Your task to perform on an android device: snooze an email in the gmail app Image 0: 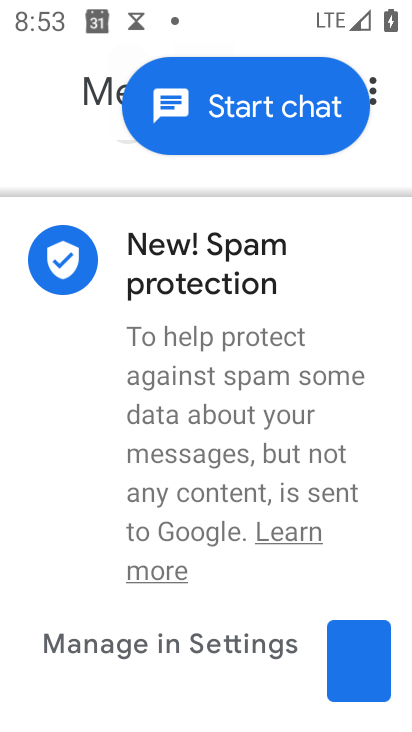
Step 0: press home button
Your task to perform on an android device: snooze an email in the gmail app Image 1: 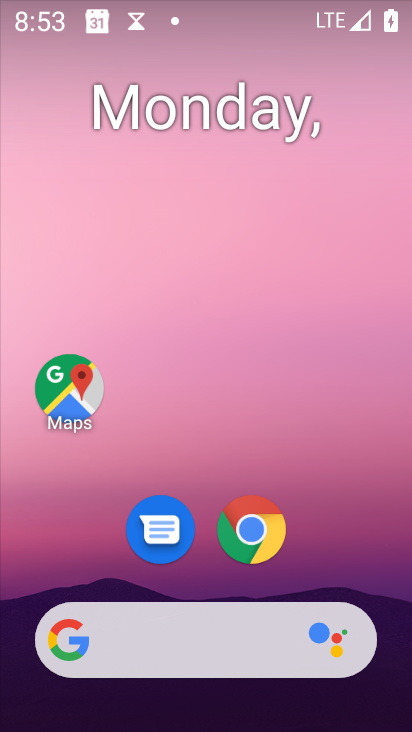
Step 1: drag from (32, 640) to (266, 159)
Your task to perform on an android device: snooze an email in the gmail app Image 2: 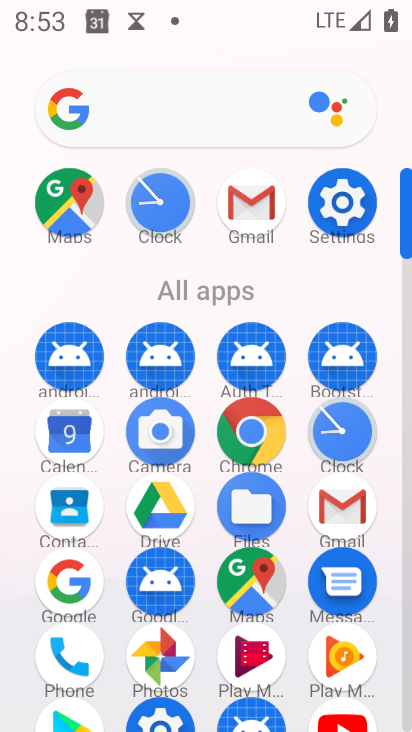
Step 2: click (259, 216)
Your task to perform on an android device: snooze an email in the gmail app Image 3: 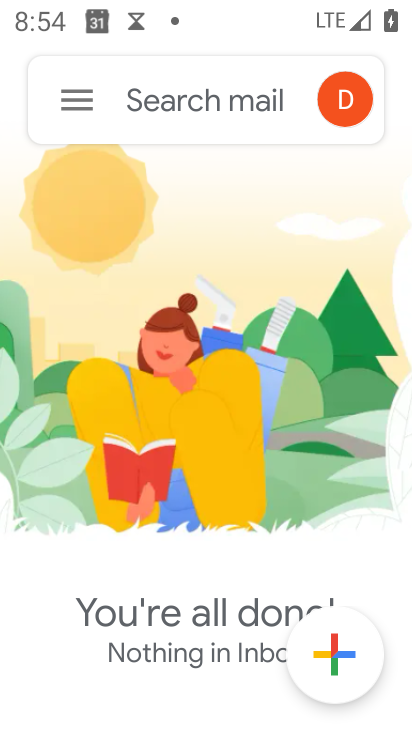
Step 3: click (66, 86)
Your task to perform on an android device: snooze an email in the gmail app Image 4: 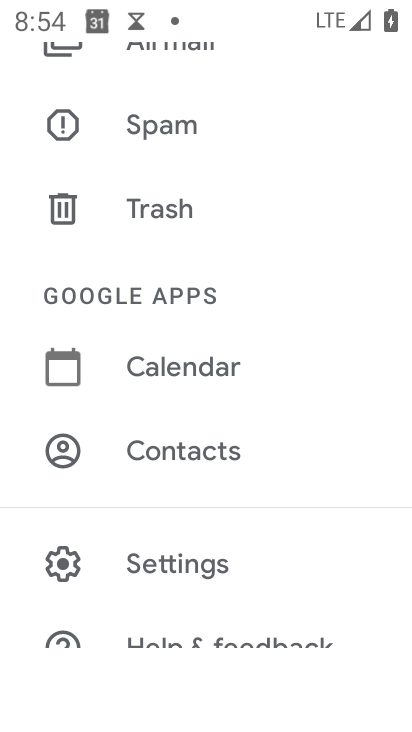
Step 4: drag from (73, 150) to (31, 599)
Your task to perform on an android device: snooze an email in the gmail app Image 5: 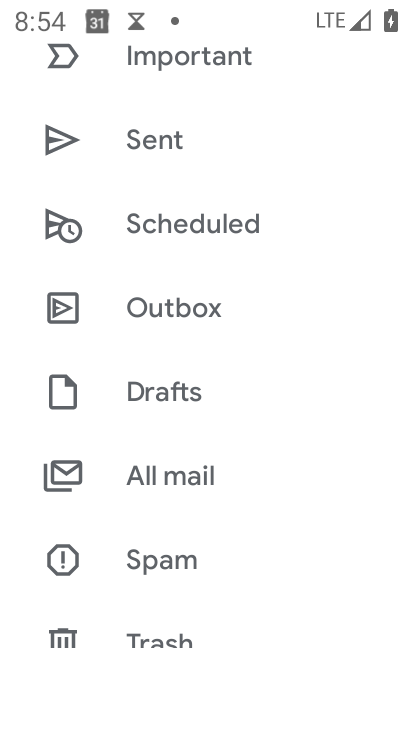
Step 5: drag from (177, 143) to (131, 674)
Your task to perform on an android device: snooze an email in the gmail app Image 6: 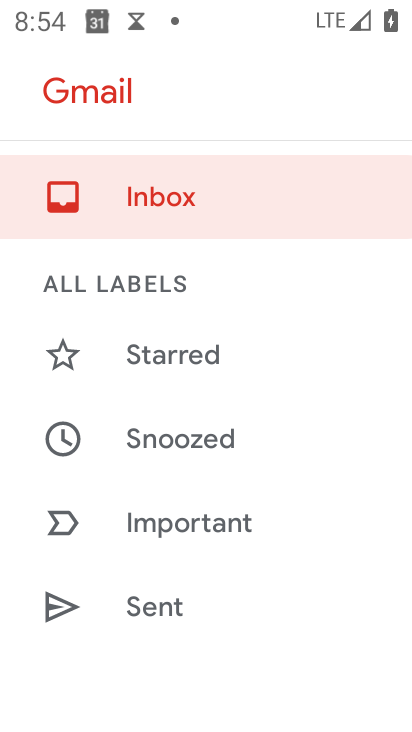
Step 6: click (164, 209)
Your task to perform on an android device: snooze an email in the gmail app Image 7: 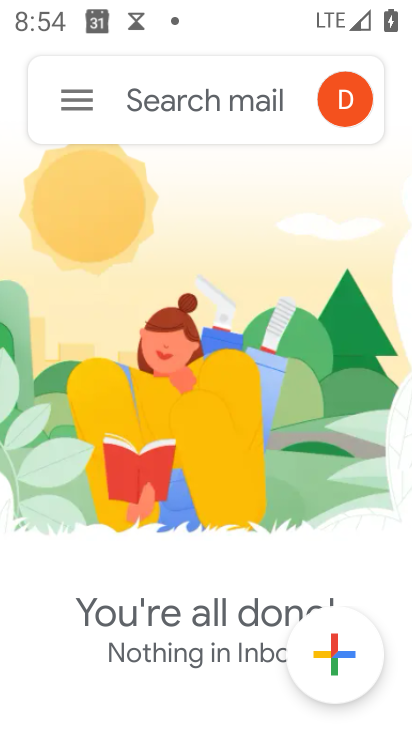
Step 7: task complete